Your task to perform on an android device: Is it going to rain today? Image 0: 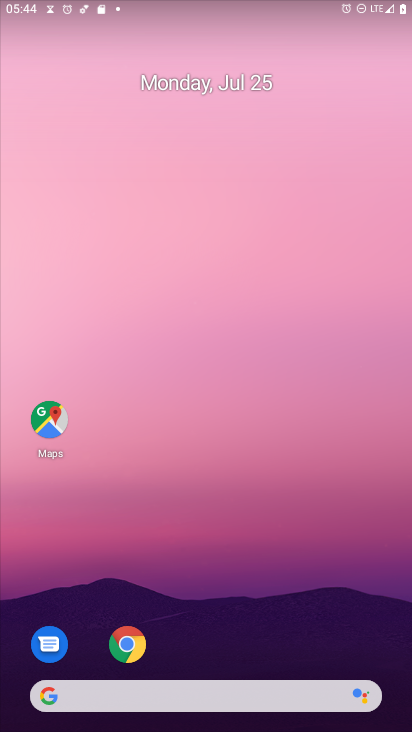
Step 0: press home button
Your task to perform on an android device: Is it going to rain today? Image 1: 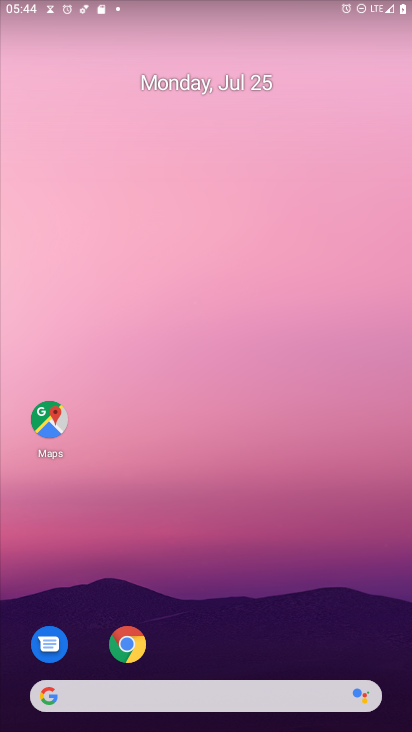
Step 1: click (41, 697)
Your task to perform on an android device: Is it going to rain today? Image 2: 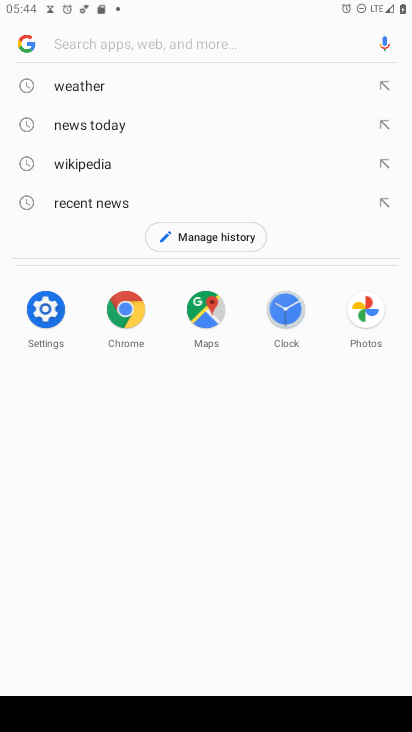
Step 2: type "rain today?"
Your task to perform on an android device: Is it going to rain today? Image 3: 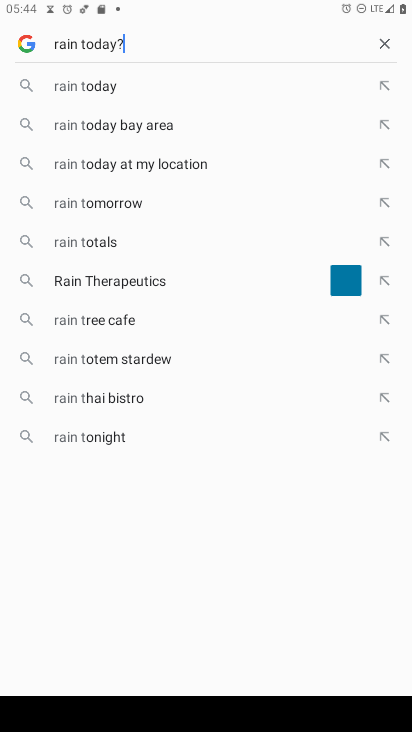
Step 3: press enter
Your task to perform on an android device: Is it going to rain today? Image 4: 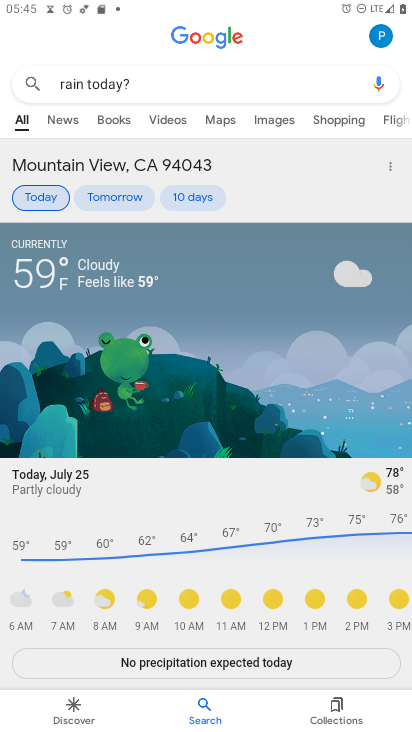
Step 4: task complete